Your task to perform on an android device: Set the phone to "Do not disturb". Image 0: 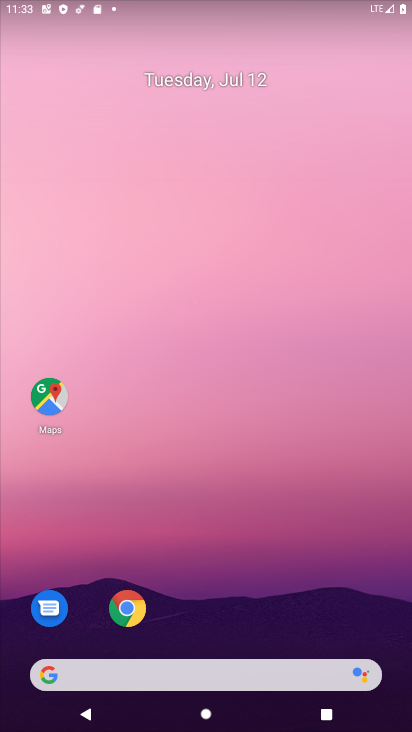
Step 0: drag from (191, 11) to (246, 365)
Your task to perform on an android device: Set the phone to "Do not disturb". Image 1: 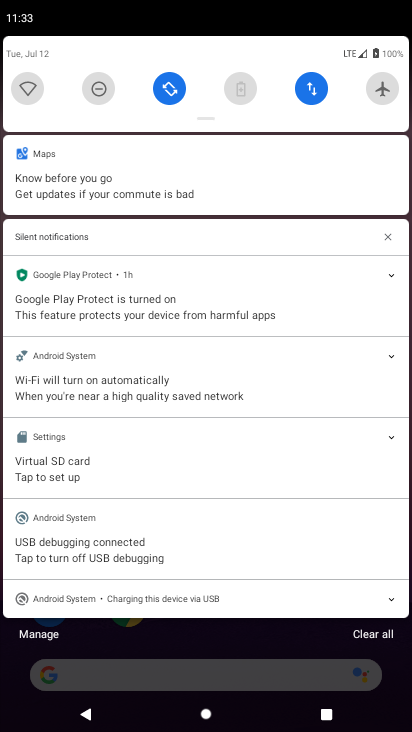
Step 1: click (99, 89)
Your task to perform on an android device: Set the phone to "Do not disturb". Image 2: 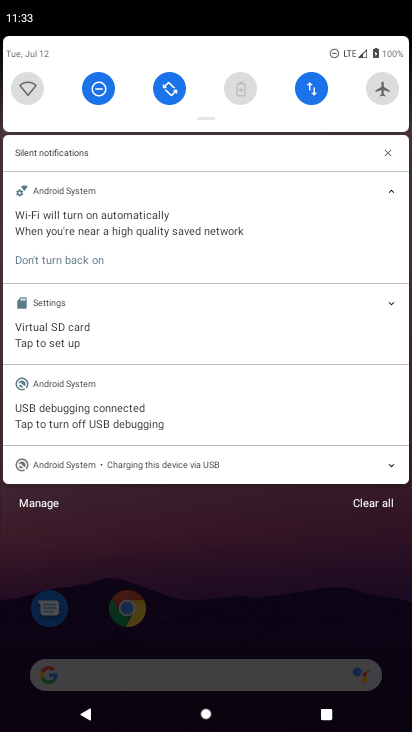
Step 2: task complete